Your task to perform on an android device: uninstall "McDonald's" Image 0: 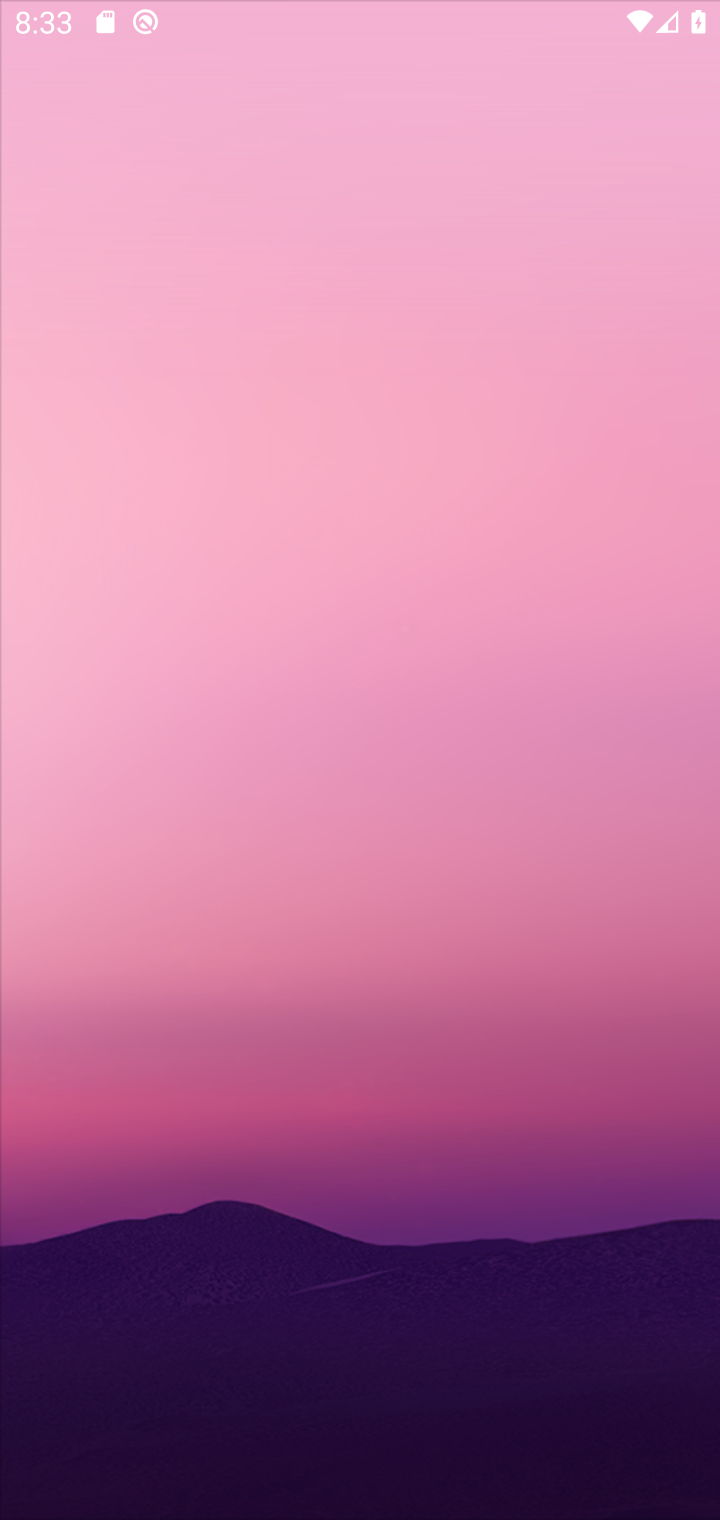
Step 0: press home button
Your task to perform on an android device: uninstall "McDonald's" Image 1: 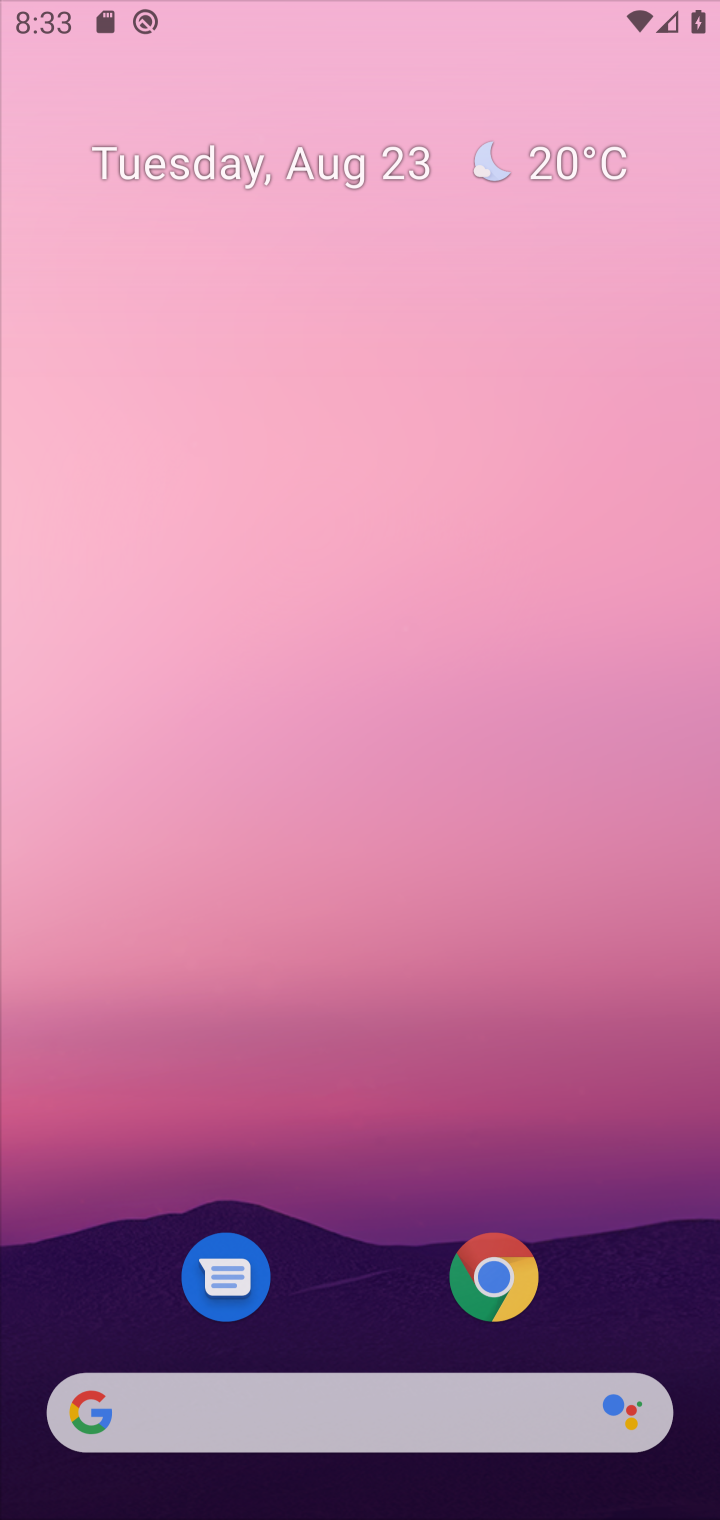
Step 1: drag from (324, 844) to (319, 221)
Your task to perform on an android device: uninstall "McDonald's" Image 2: 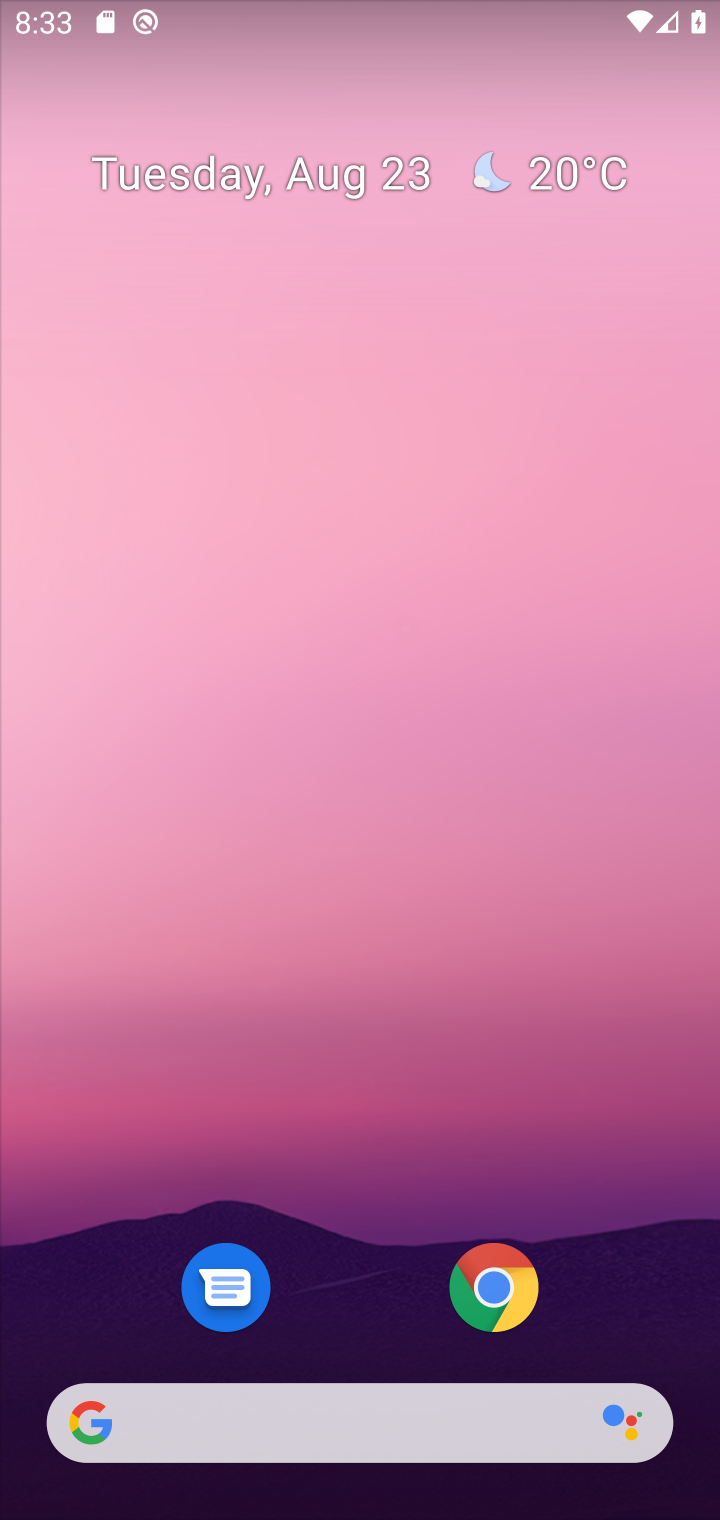
Step 2: drag from (408, 842) to (409, 79)
Your task to perform on an android device: uninstall "McDonald's" Image 3: 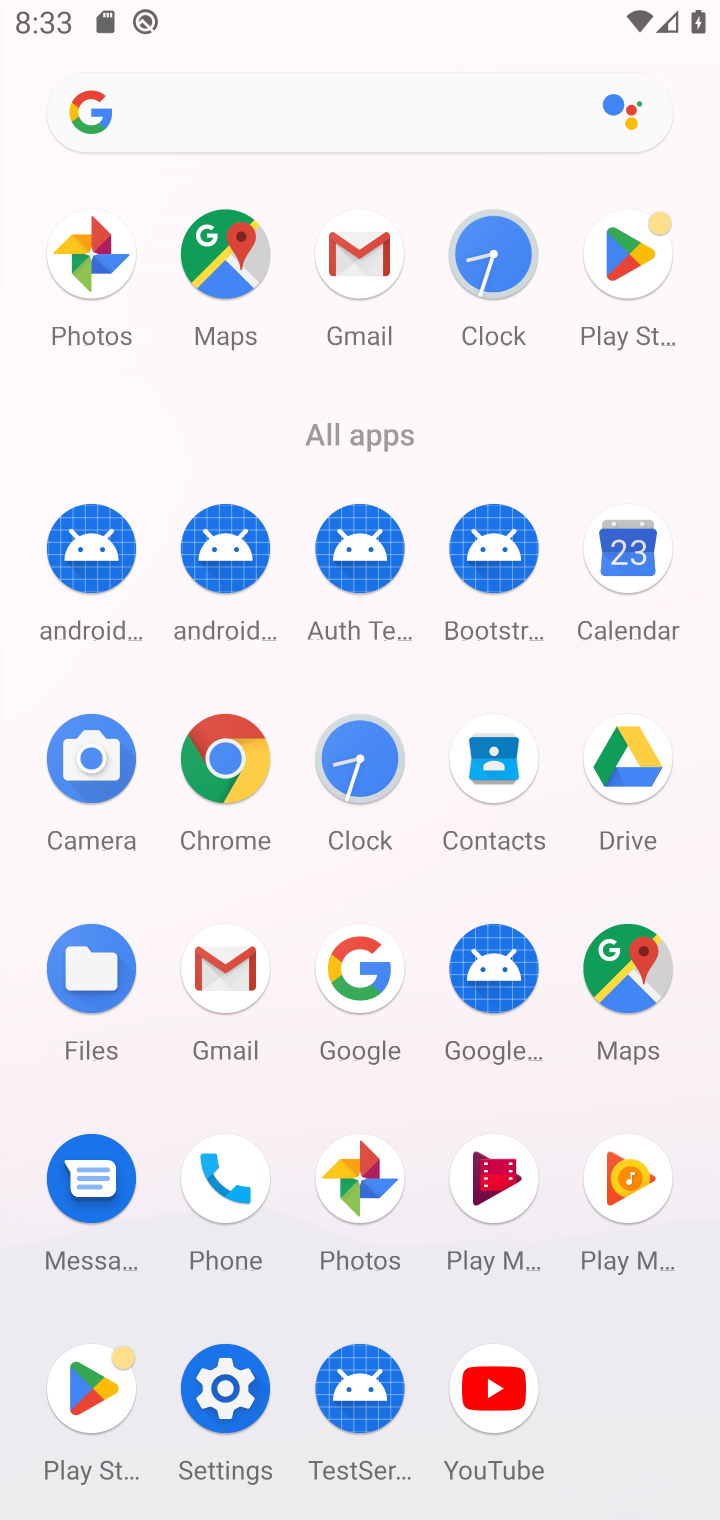
Step 3: click (630, 254)
Your task to perform on an android device: uninstall "McDonald's" Image 4: 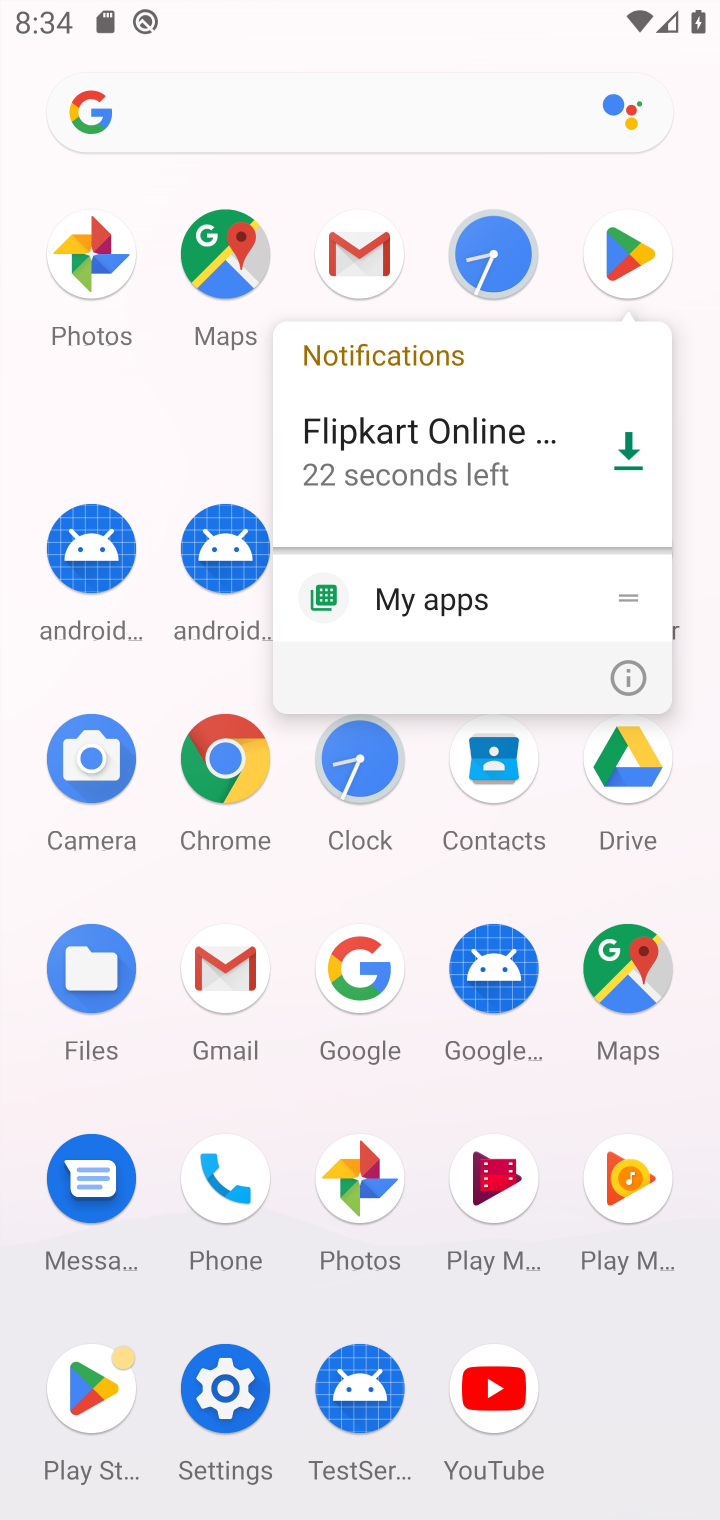
Step 4: click (633, 248)
Your task to perform on an android device: uninstall "McDonald's" Image 5: 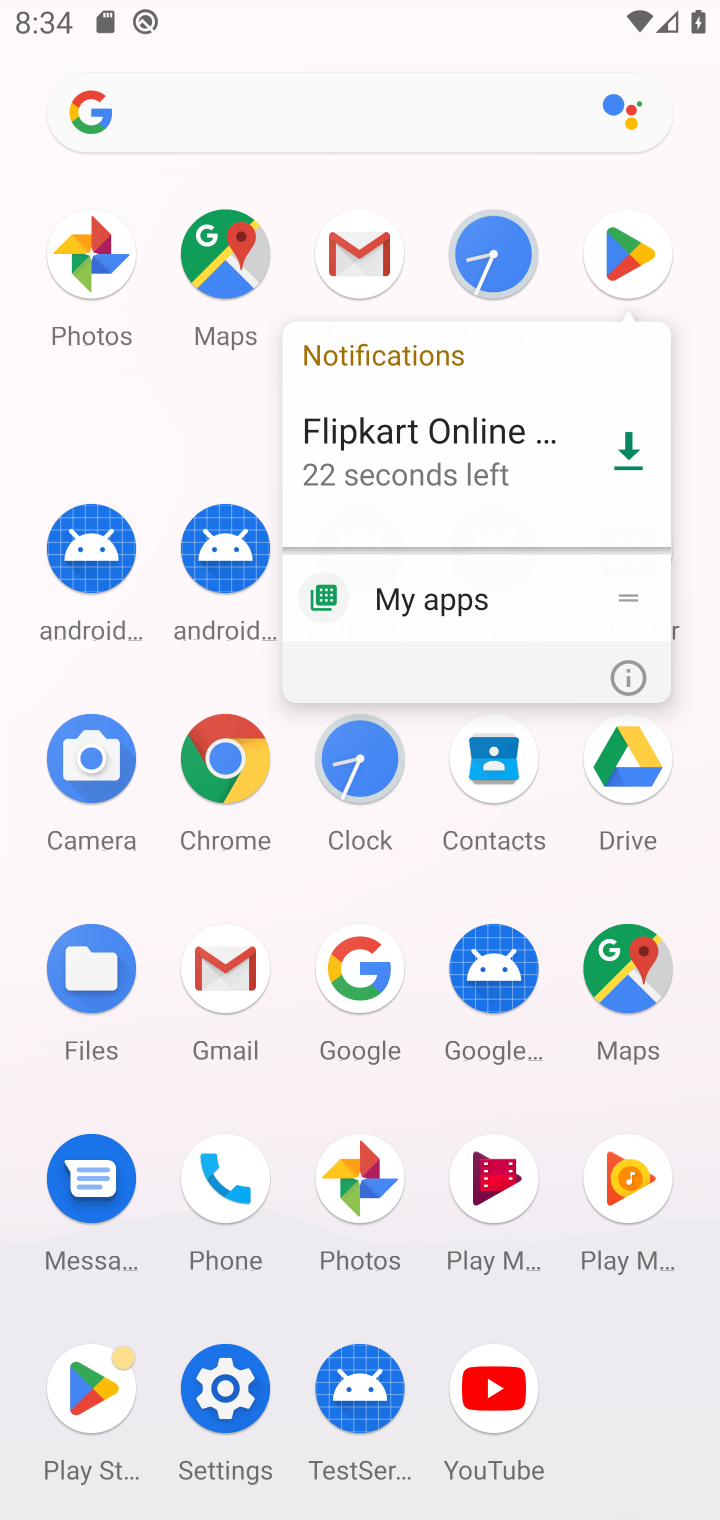
Step 5: click (629, 246)
Your task to perform on an android device: uninstall "McDonald's" Image 6: 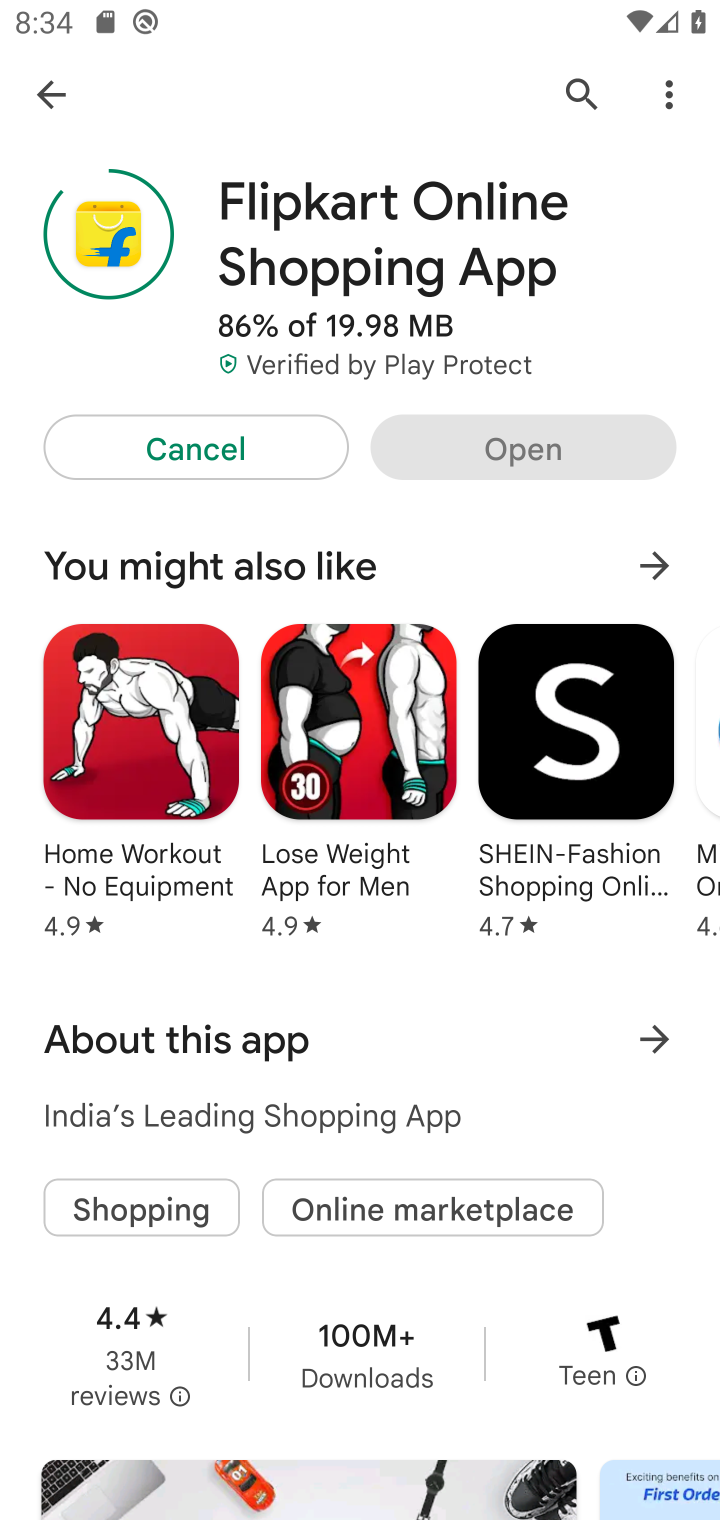
Step 6: click (569, 81)
Your task to perform on an android device: uninstall "McDonald's" Image 7: 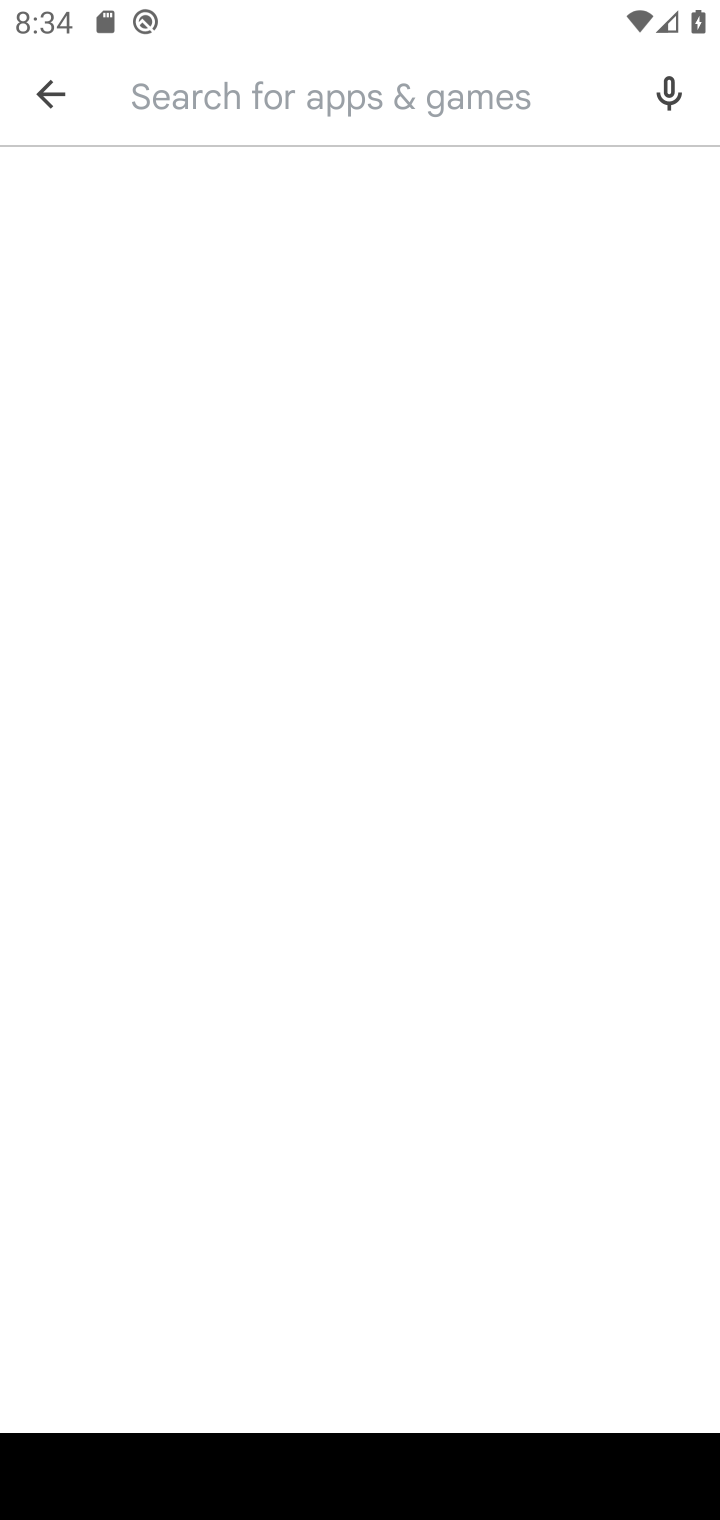
Step 7: type "McDonald's"
Your task to perform on an android device: uninstall "McDonald's" Image 8: 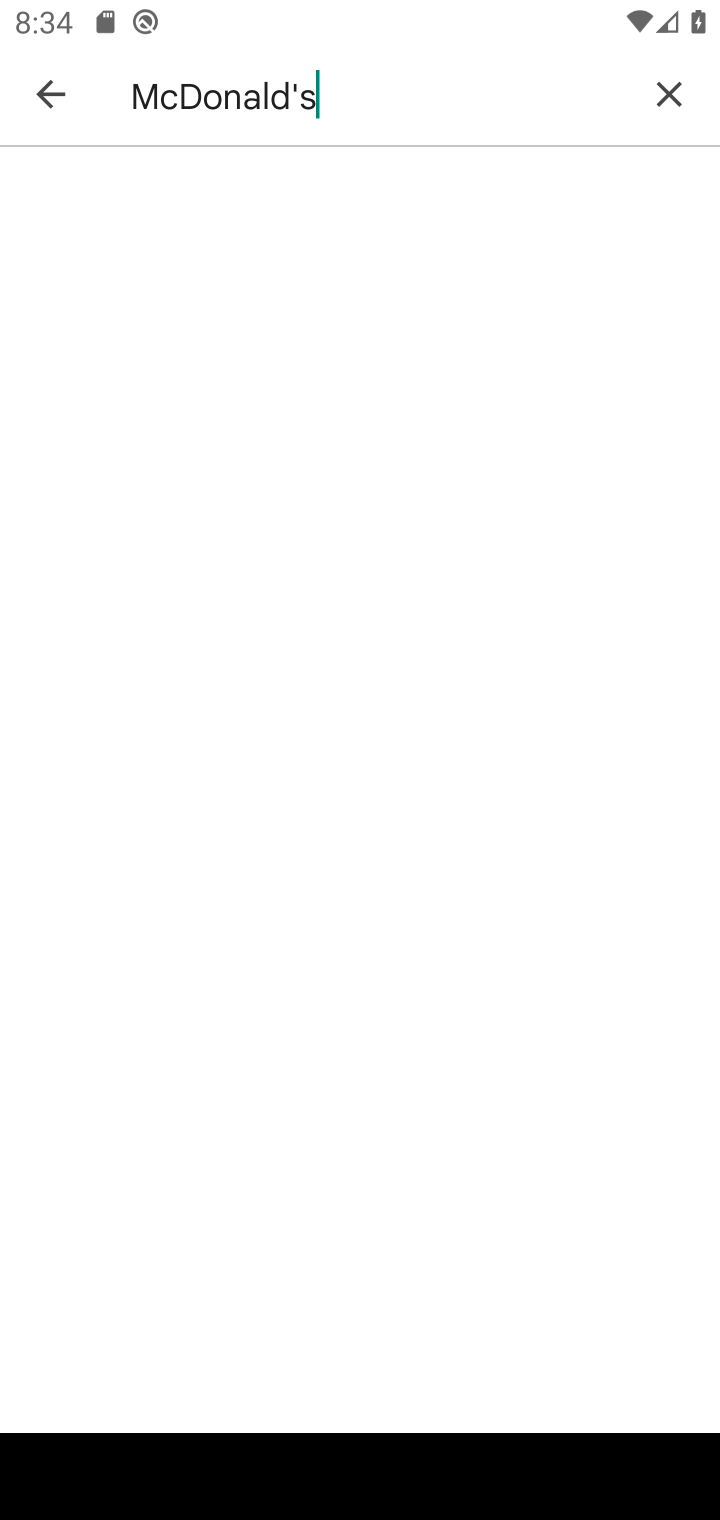
Step 8: type ""
Your task to perform on an android device: uninstall "McDonald's" Image 9: 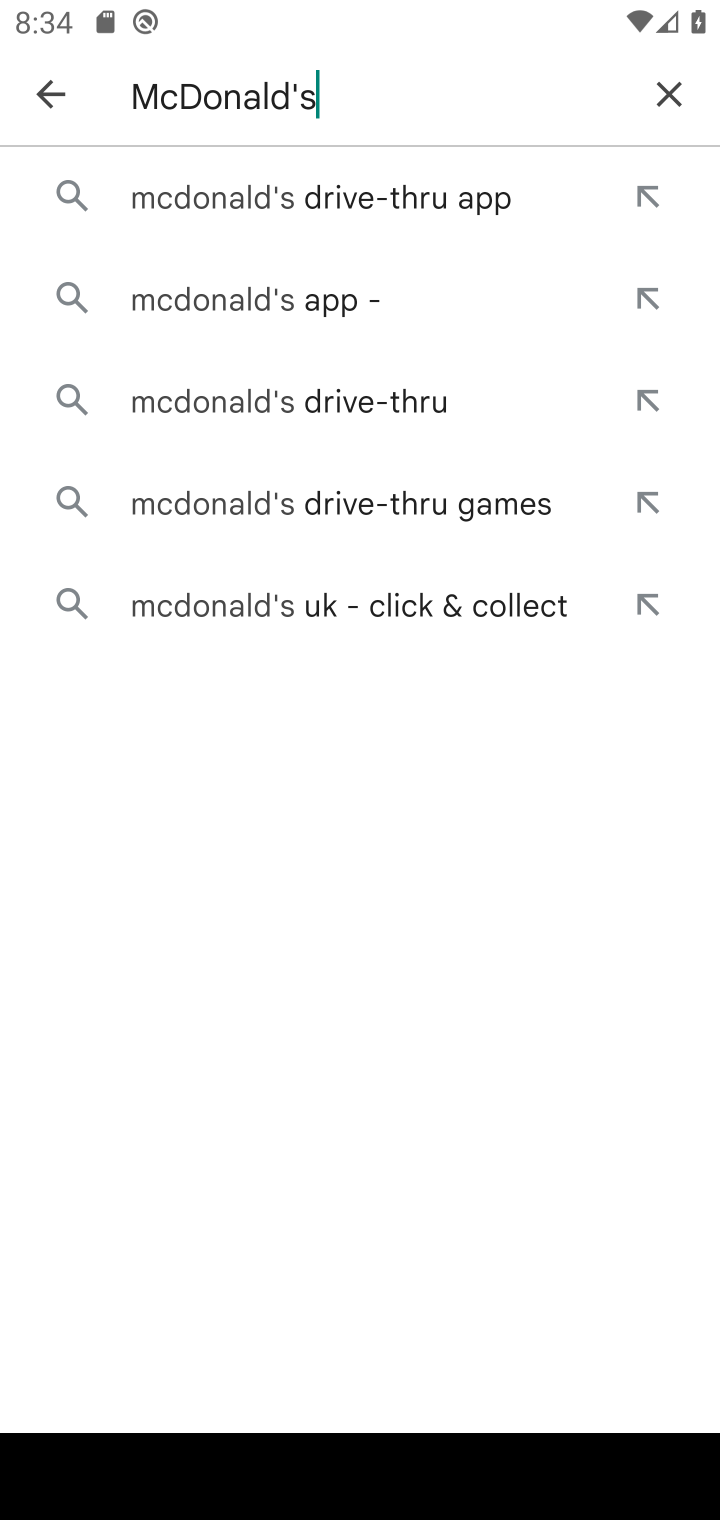
Step 9: click (241, 297)
Your task to perform on an android device: uninstall "McDonald's" Image 10: 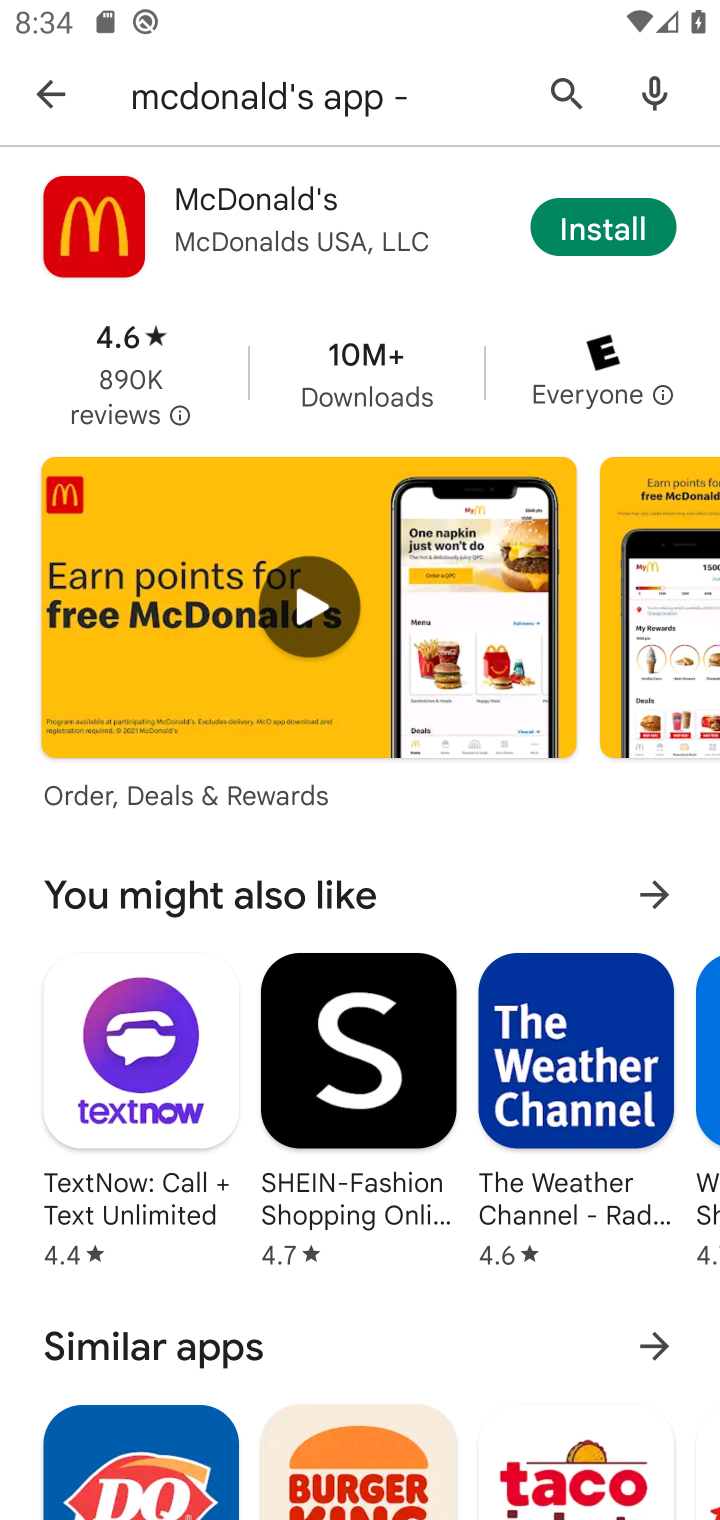
Step 10: click (226, 219)
Your task to perform on an android device: uninstall "McDonald's" Image 11: 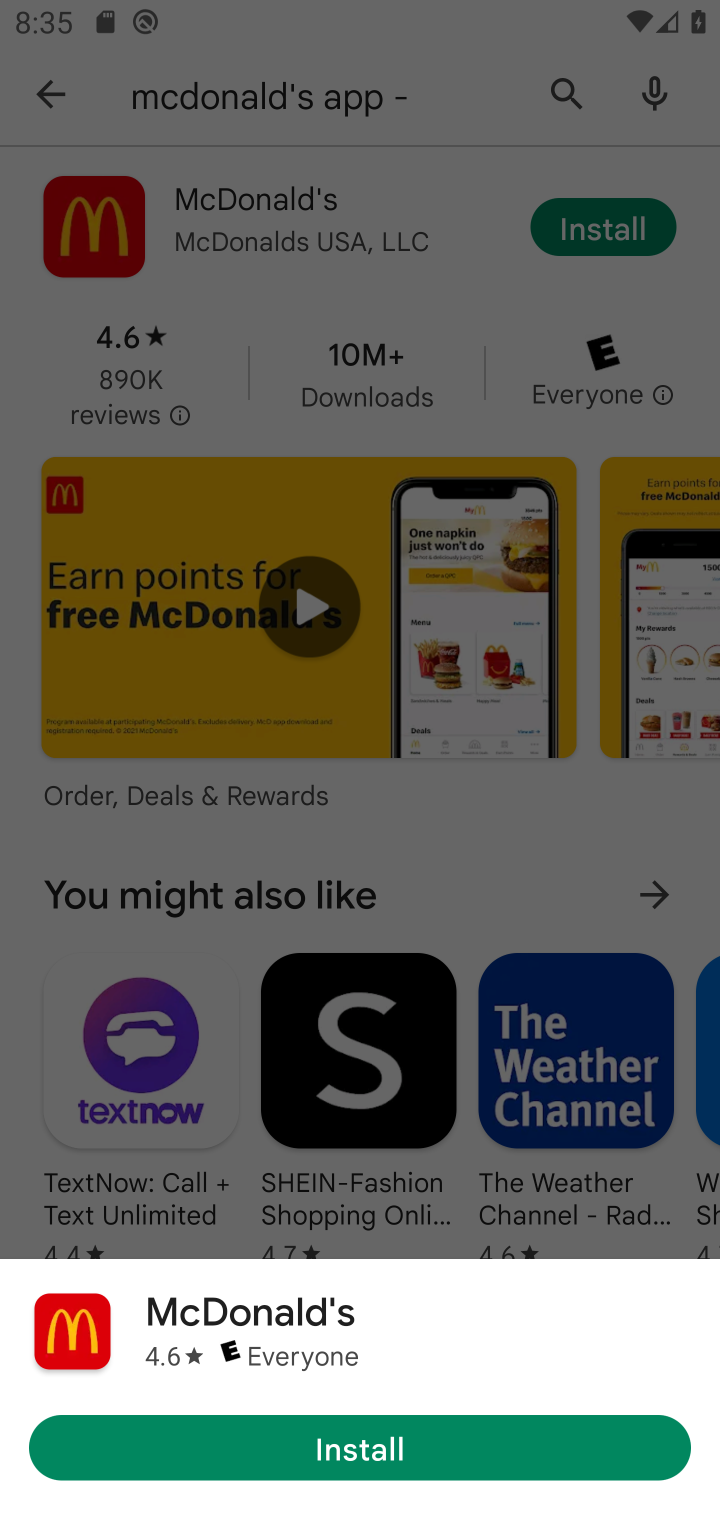
Step 11: task complete